Your task to perform on an android device: open chrome and create a bookmark for the current page Image 0: 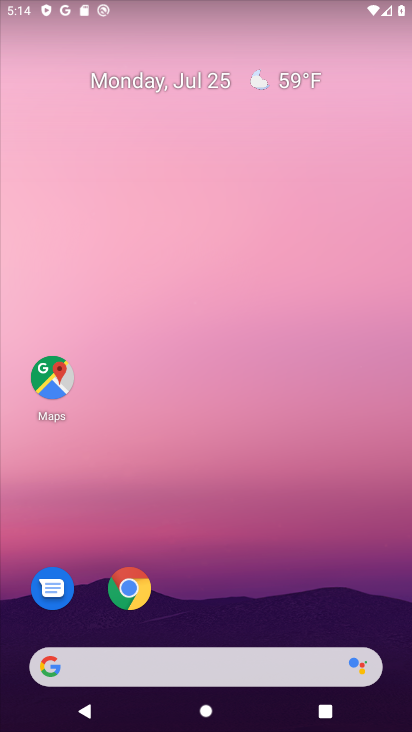
Step 0: click (296, 525)
Your task to perform on an android device: open chrome and create a bookmark for the current page Image 1: 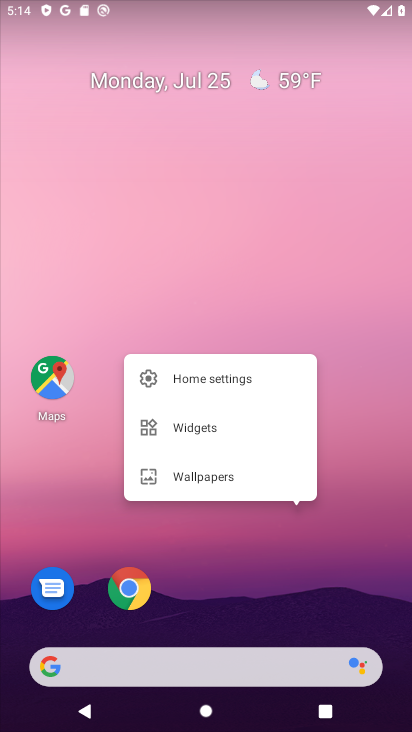
Step 1: click (125, 591)
Your task to perform on an android device: open chrome and create a bookmark for the current page Image 2: 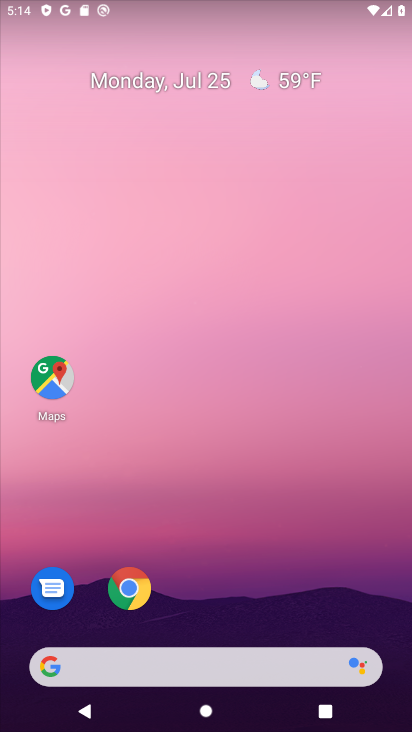
Step 2: click (125, 591)
Your task to perform on an android device: open chrome and create a bookmark for the current page Image 3: 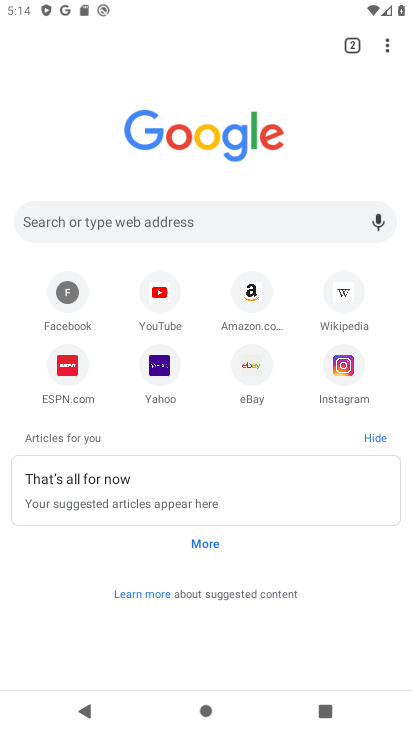
Step 3: click (384, 42)
Your task to perform on an android device: open chrome and create a bookmark for the current page Image 4: 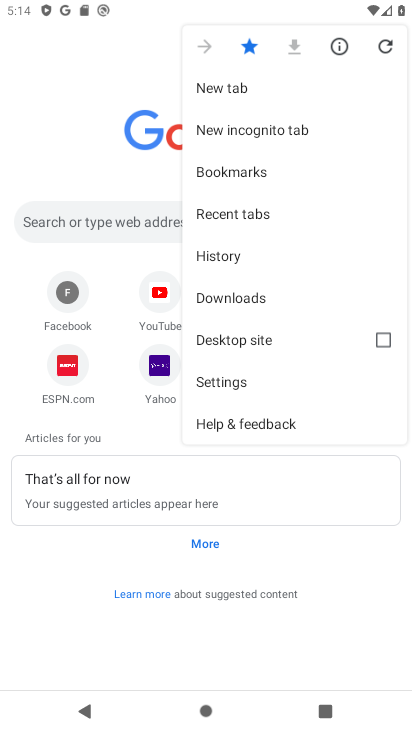
Step 4: click (244, 173)
Your task to perform on an android device: open chrome and create a bookmark for the current page Image 5: 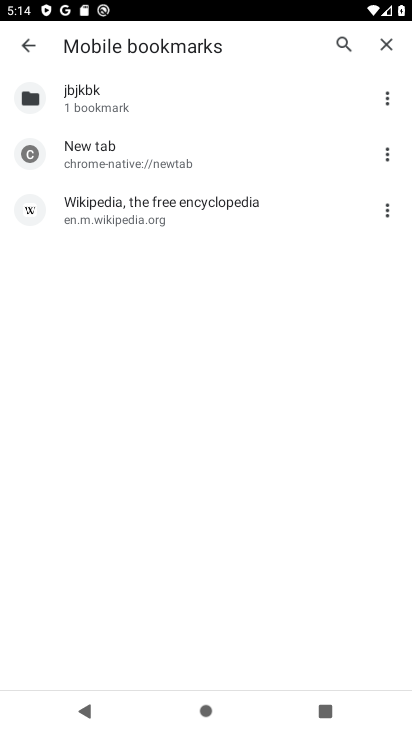
Step 5: task complete